Your task to perform on an android device: check storage Image 0: 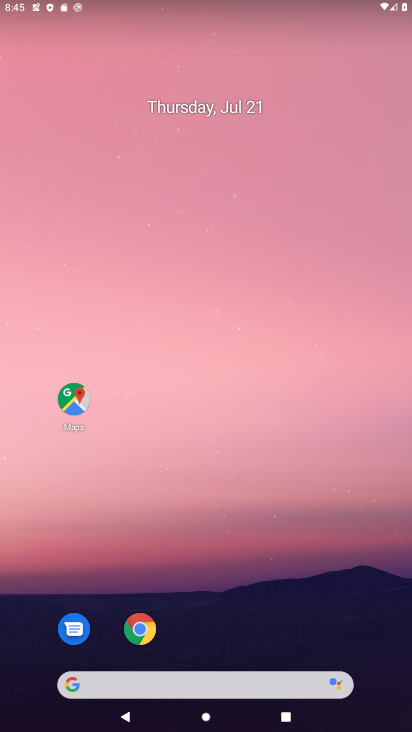
Step 0: drag from (206, 635) to (281, 56)
Your task to perform on an android device: check storage Image 1: 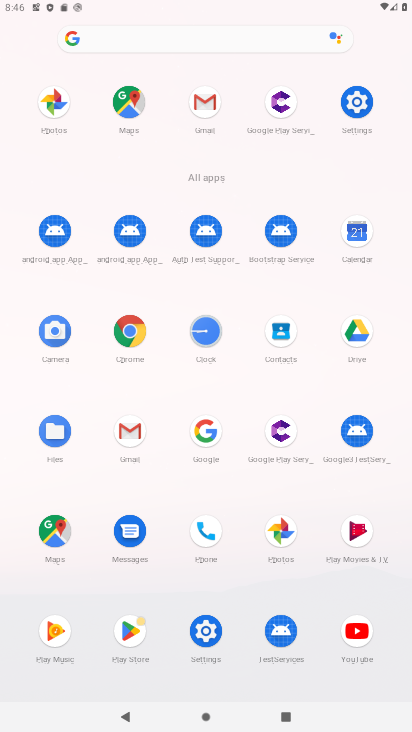
Step 1: click (362, 111)
Your task to perform on an android device: check storage Image 2: 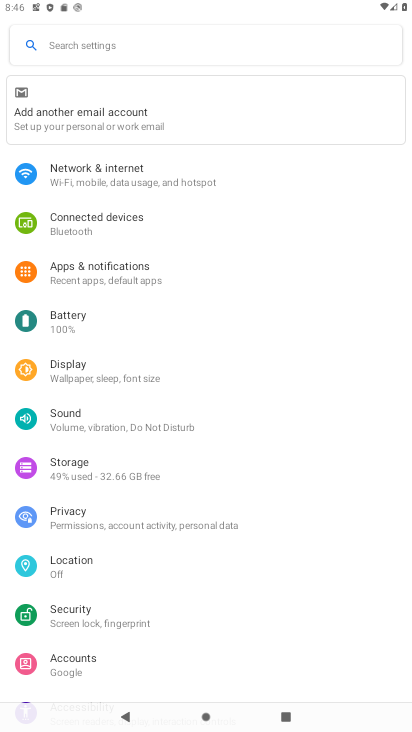
Step 2: click (78, 469)
Your task to perform on an android device: check storage Image 3: 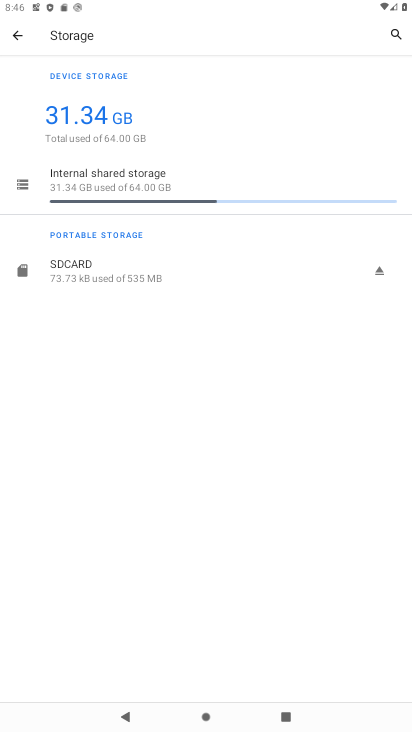
Step 3: task complete